Your task to perform on an android device: Go to Maps Image 0: 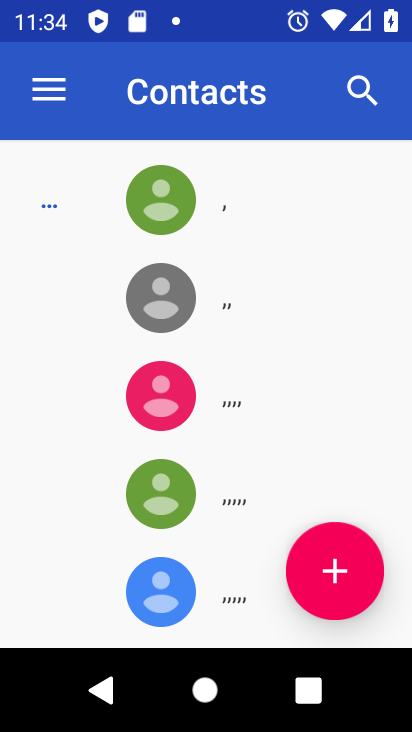
Step 0: press home button
Your task to perform on an android device: Go to Maps Image 1: 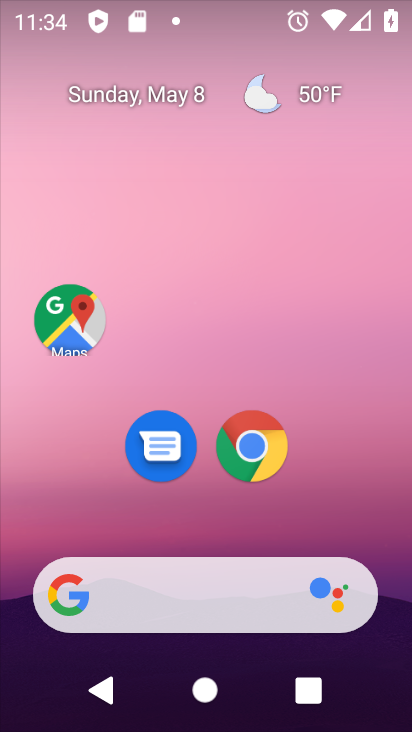
Step 1: drag from (285, 522) to (391, 0)
Your task to perform on an android device: Go to Maps Image 2: 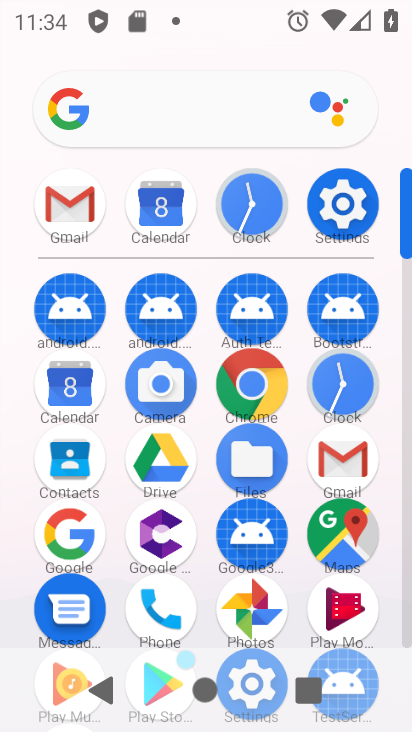
Step 2: click (352, 529)
Your task to perform on an android device: Go to Maps Image 3: 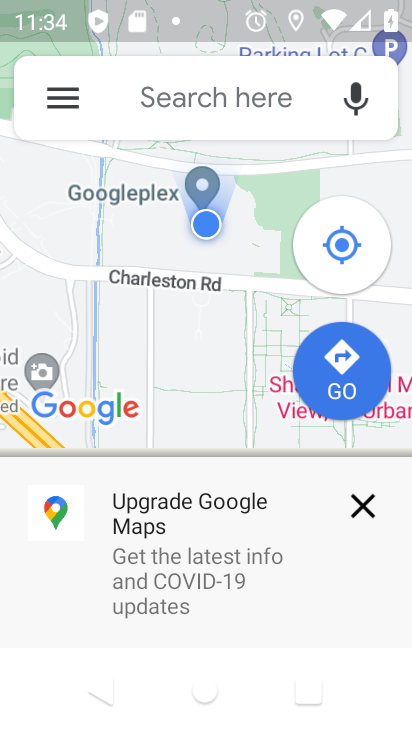
Step 3: task complete